Your task to perform on an android device: turn off location Image 0: 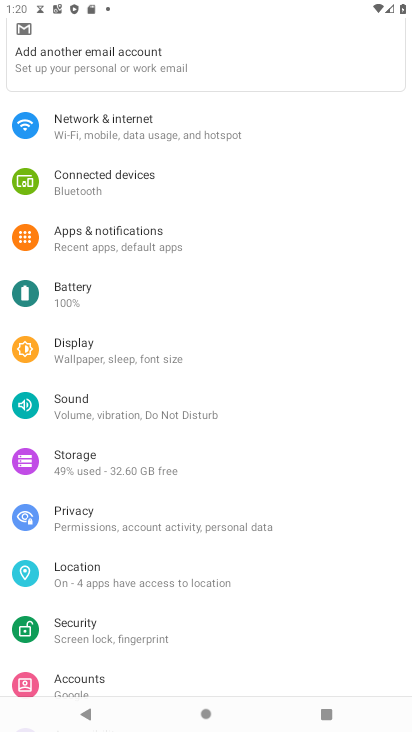
Step 0: press home button
Your task to perform on an android device: turn off location Image 1: 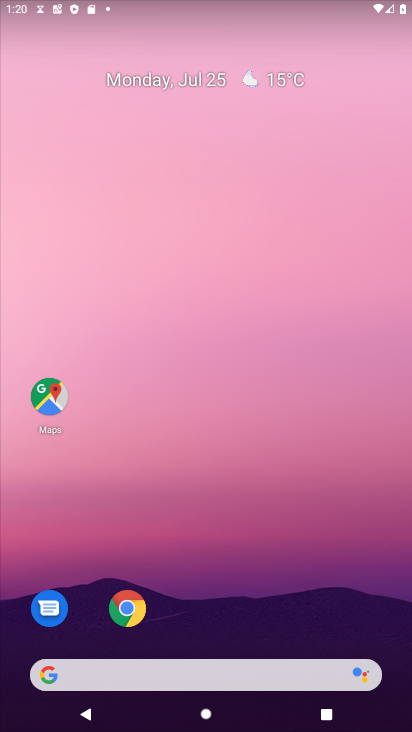
Step 1: drag from (6, 707) to (280, 63)
Your task to perform on an android device: turn off location Image 2: 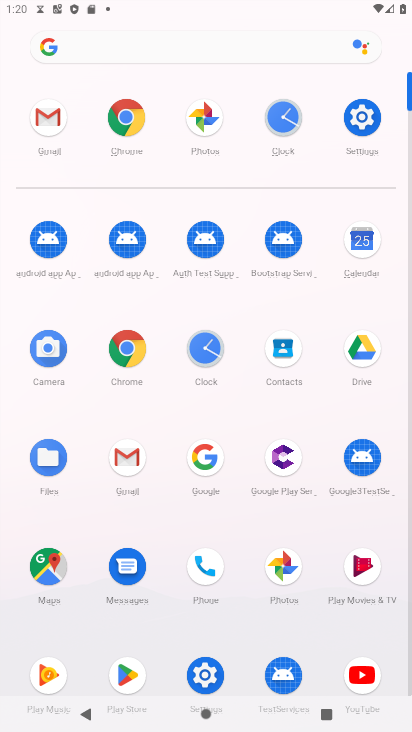
Step 2: click (210, 676)
Your task to perform on an android device: turn off location Image 3: 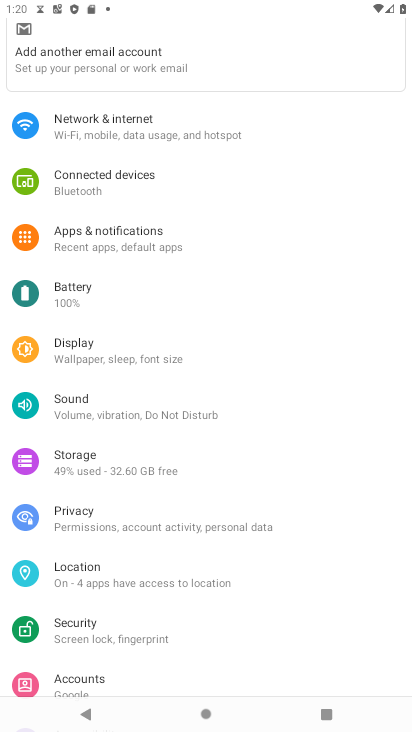
Step 3: click (58, 575)
Your task to perform on an android device: turn off location Image 4: 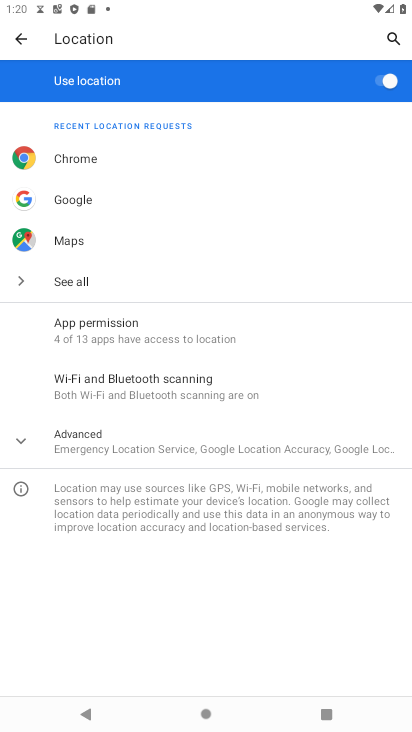
Step 4: click (383, 75)
Your task to perform on an android device: turn off location Image 5: 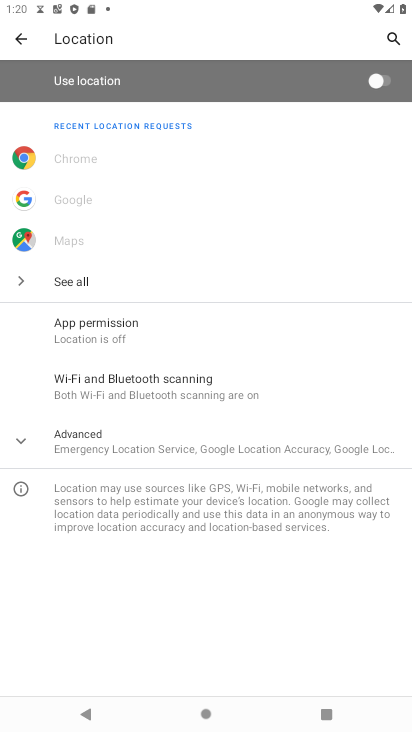
Step 5: task complete